Your task to perform on an android device: Show me popular games on the Play Store Image 0: 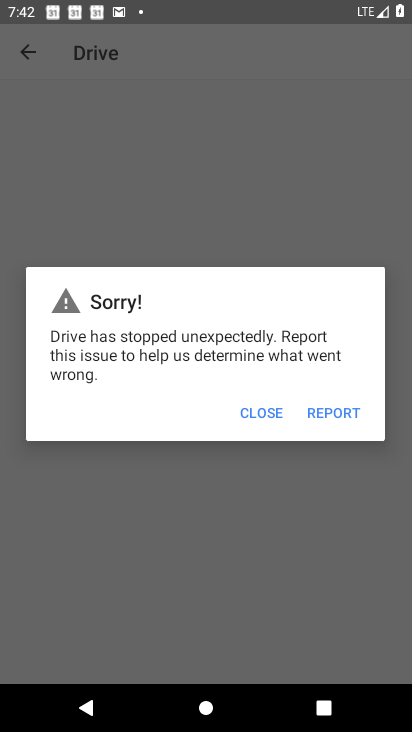
Step 0: press home button
Your task to perform on an android device: Show me popular games on the Play Store Image 1: 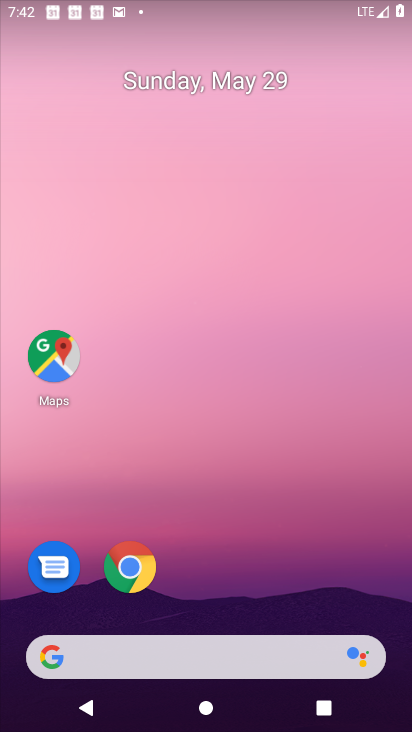
Step 1: drag from (250, 561) to (241, 237)
Your task to perform on an android device: Show me popular games on the Play Store Image 2: 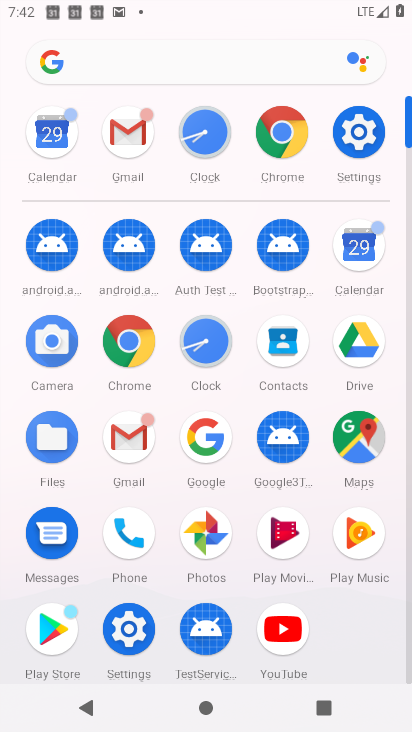
Step 2: click (43, 625)
Your task to perform on an android device: Show me popular games on the Play Store Image 3: 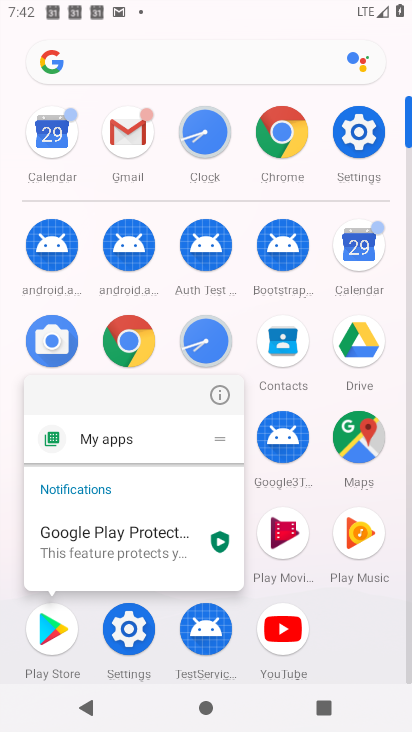
Step 3: click (47, 627)
Your task to perform on an android device: Show me popular games on the Play Store Image 4: 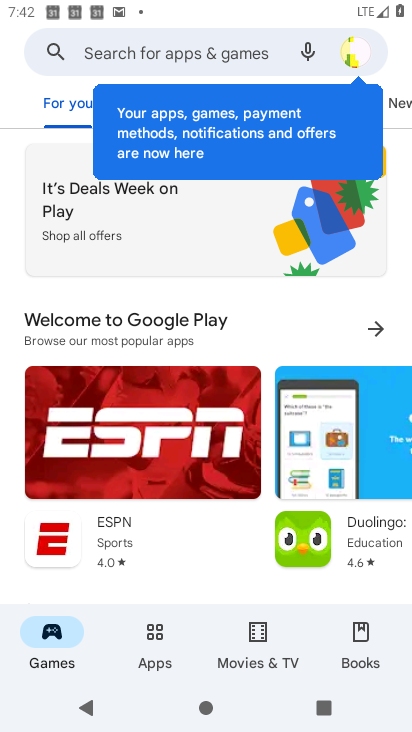
Step 4: task complete